Your task to perform on an android device: turn on wifi Image 0: 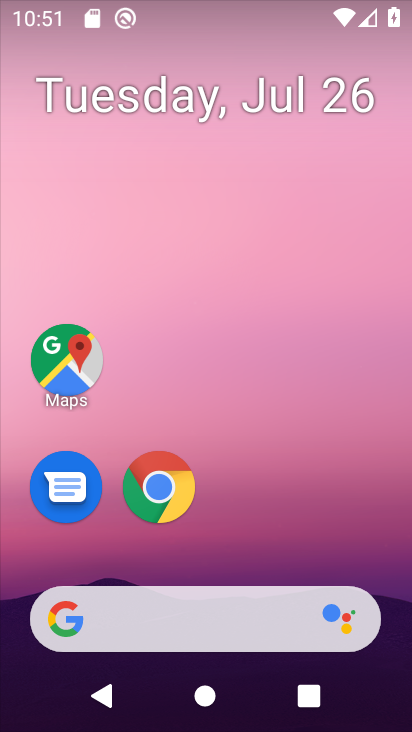
Step 0: drag from (161, 12) to (217, 435)
Your task to perform on an android device: turn on wifi Image 1: 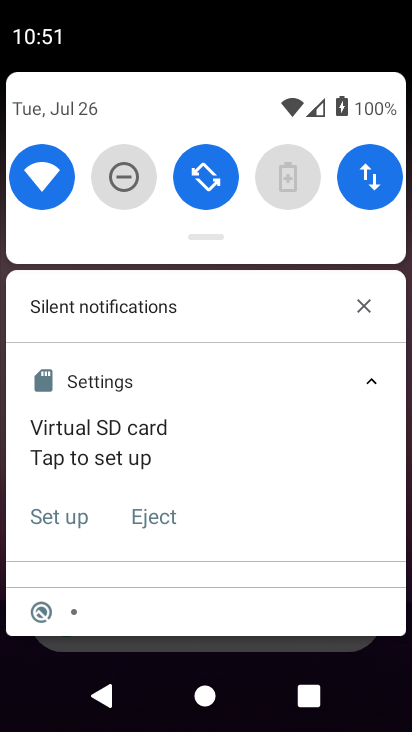
Step 1: task complete